Your task to perform on an android device: What's on my calendar tomorrow? Image 0: 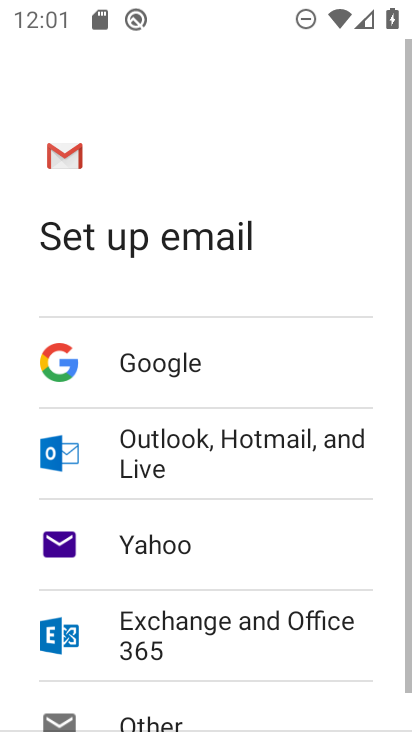
Step 0: press home button
Your task to perform on an android device: What's on my calendar tomorrow? Image 1: 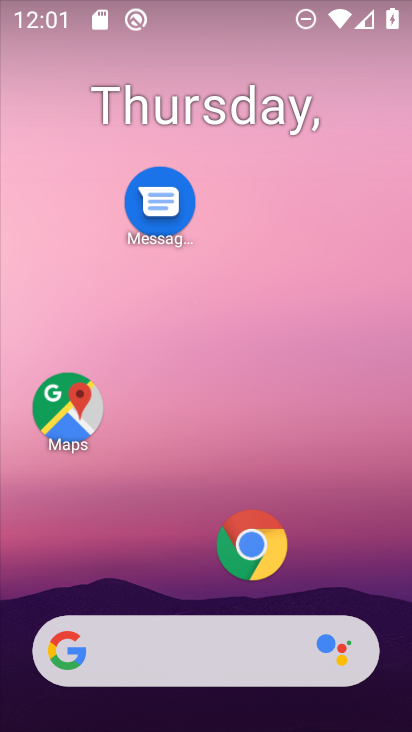
Step 1: drag from (167, 586) to (218, 226)
Your task to perform on an android device: What's on my calendar tomorrow? Image 2: 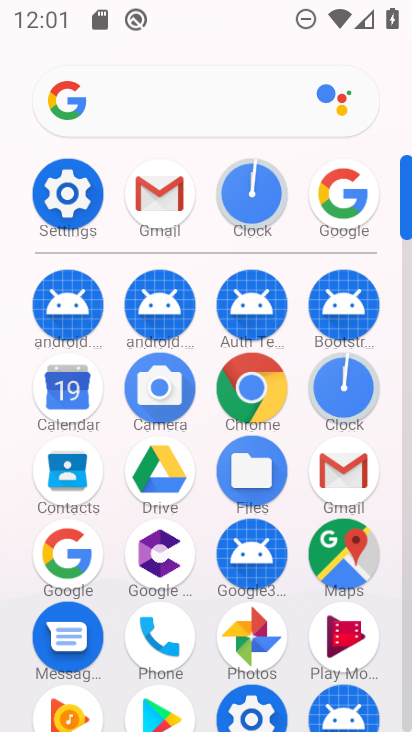
Step 2: click (82, 384)
Your task to perform on an android device: What's on my calendar tomorrow? Image 3: 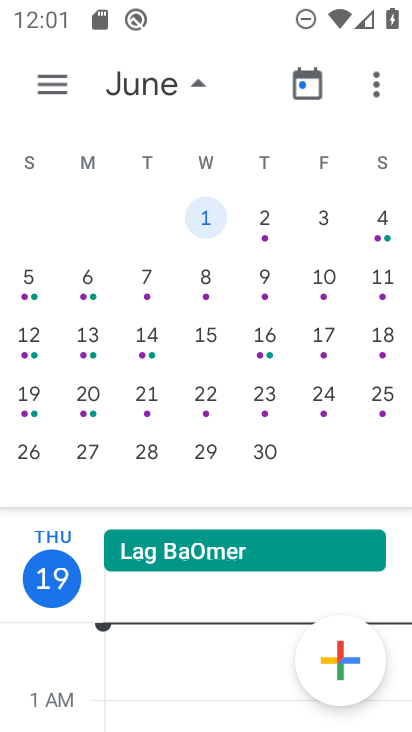
Step 3: drag from (65, 319) to (346, 329)
Your task to perform on an android device: What's on my calendar tomorrow? Image 4: 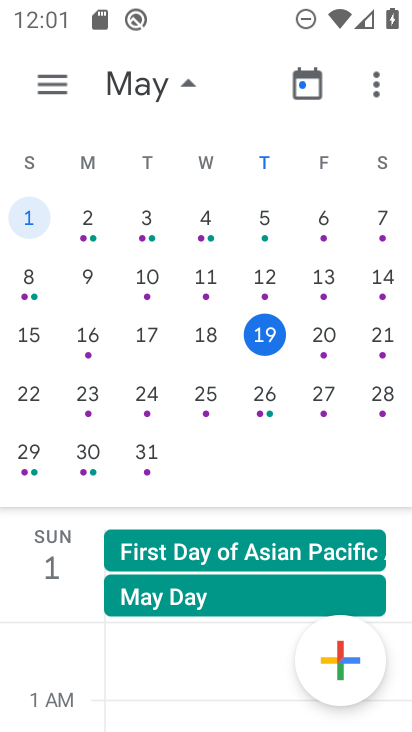
Step 4: click (324, 331)
Your task to perform on an android device: What's on my calendar tomorrow? Image 5: 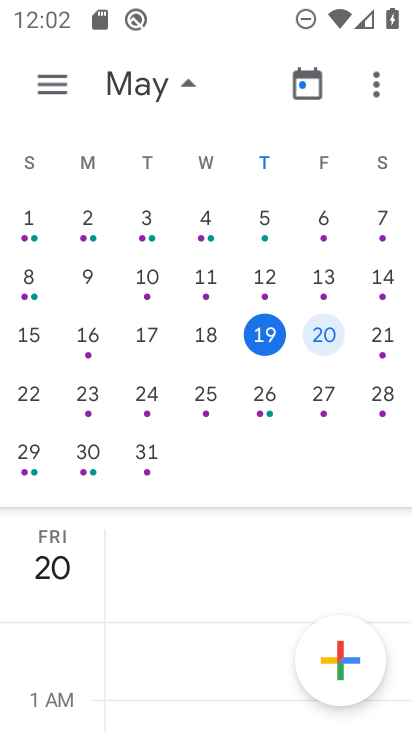
Step 5: task complete